Your task to perform on an android device: Open the web browser Image 0: 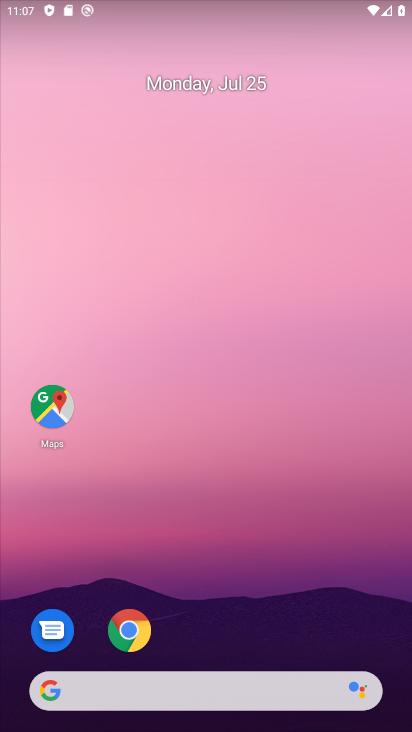
Step 0: drag from (313, 662) to (288, 157)
Your task to perform on an android device: Open the web browser Image 1: 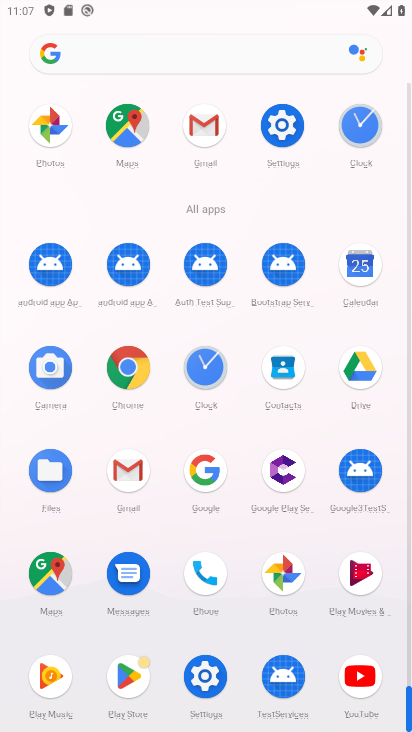
Step 1: drag from (272, 380) to (232, 138)
Your task to perform on an android device: Open the web browser Image 2: 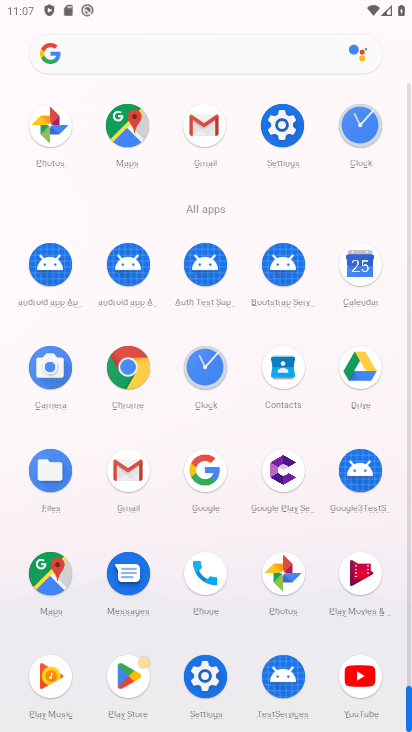
Step 2: click (122, 377)
Your task to perform on an android device: Open the web browser Image 3: 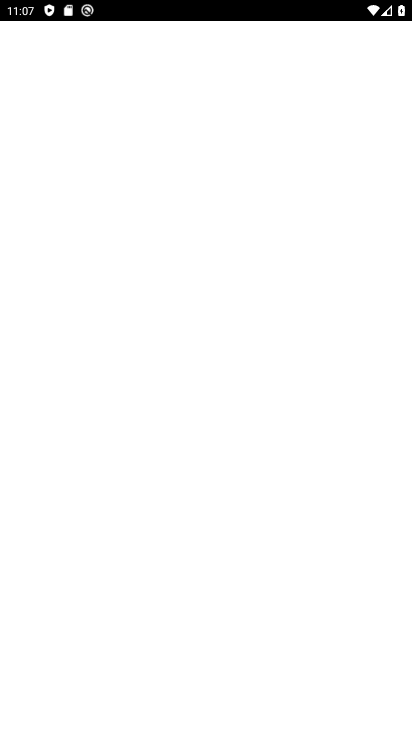
Step 3: click (128, 377)
Your task to perform on an android device: Open the web browser Image 4: 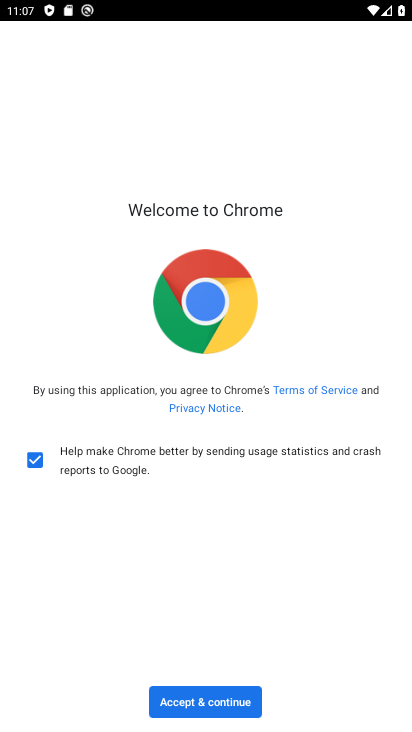
Step 4: click (190, 691)
Your task to perform on an android device: Open the web browser Image 5: 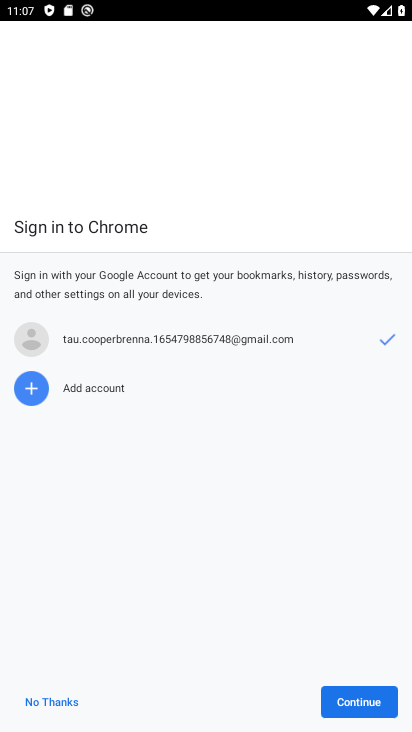
Step 5: click (195, 698)
Your task to perform on an android device: Open the web browser Image 6: 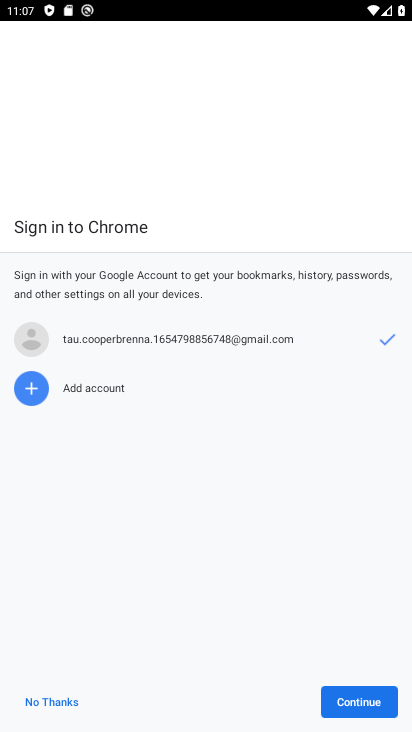
Step 6: click (75, 701)
Your task to perform on an android device: Open the web browser Image 7: 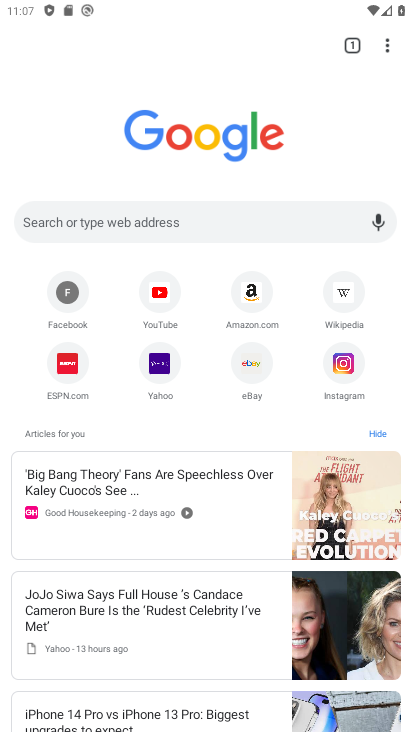
Step 7: task complete